Your task to perform on an android device: Go to wifi settings Image 0: 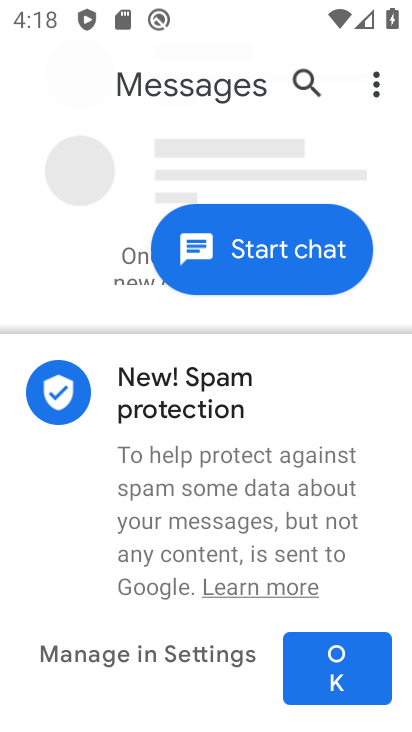
Step 0: press home button
Your task to perform on an android device: Go to wifi settings Image 1: 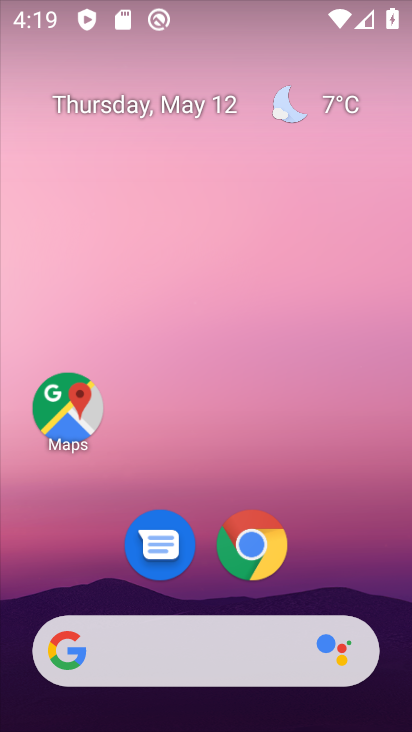
Step 1: drag from (350, 540) to (340, 120)
Your task to perform on an android device: Go to wifi settings Image 2: 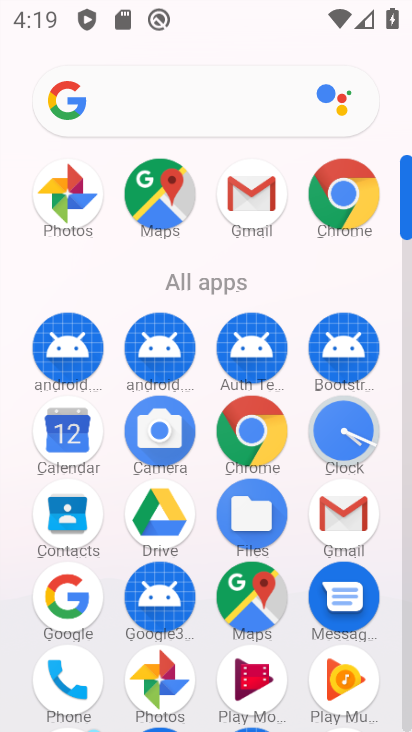
Step 2: drag from (255, 599) to (333, 218)
Your task to perform on an android device: Go to wifi settings Image 3: 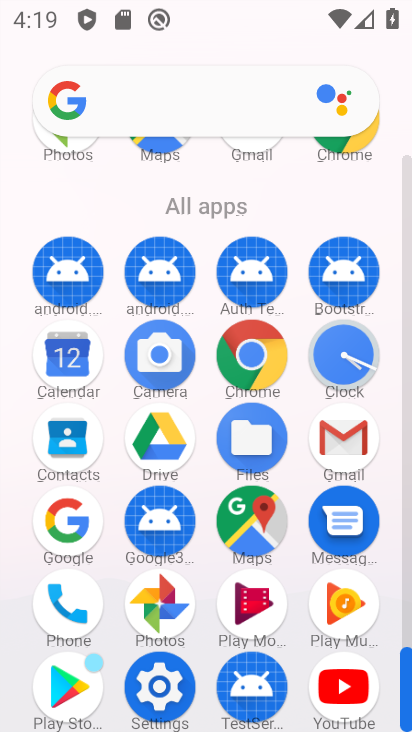
Step 3: click (175, 645)
Your task to perform on an android device: Go to wifi settings Image 4: 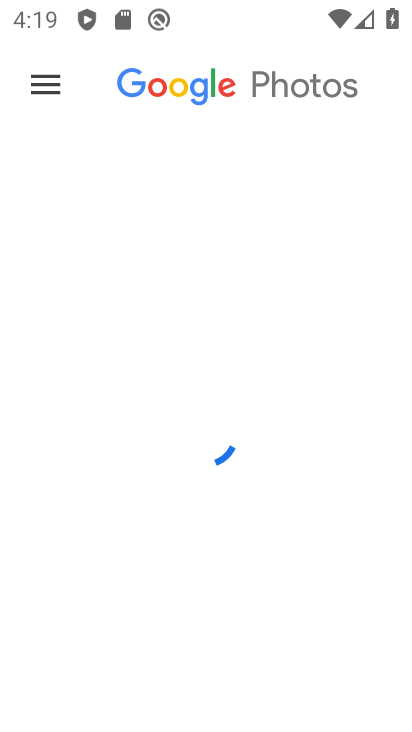
Step 4: press home button
Your task to perform on an android device: Go to wifi settings Image 5: 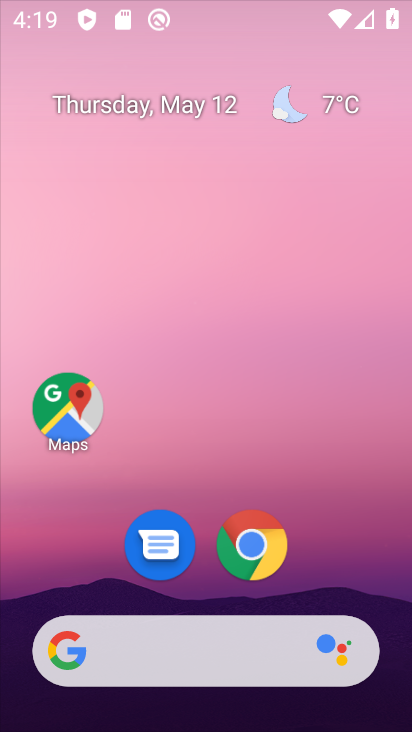
Step 5: drag from (231, 439) to (270, 52)
Your task to perform on an android device: Go to wifi settings Image 6: 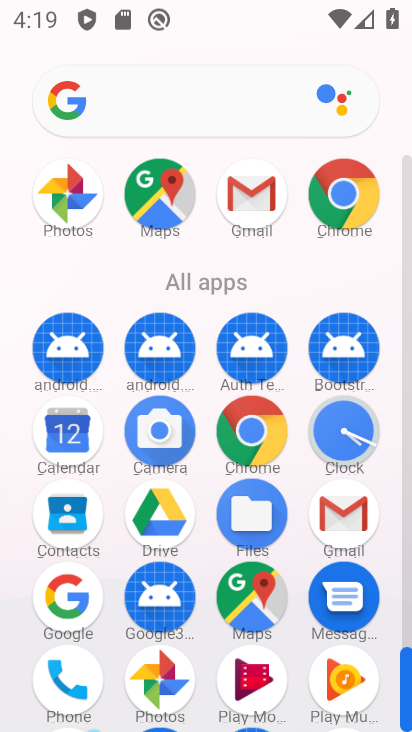
Step 6: drag from (210, 568) to (234, 121)
Your task to perform on an android device: Go to wifi settings Image 7: 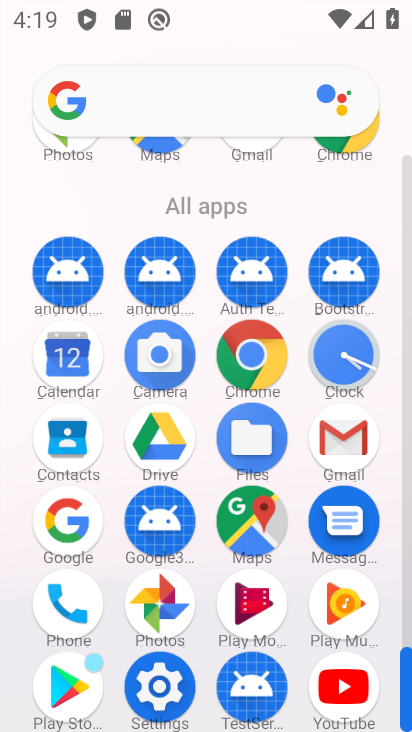
Step 7: click (170, 703)
Your task to perform on an android device: Go to wifi settings Image 8: 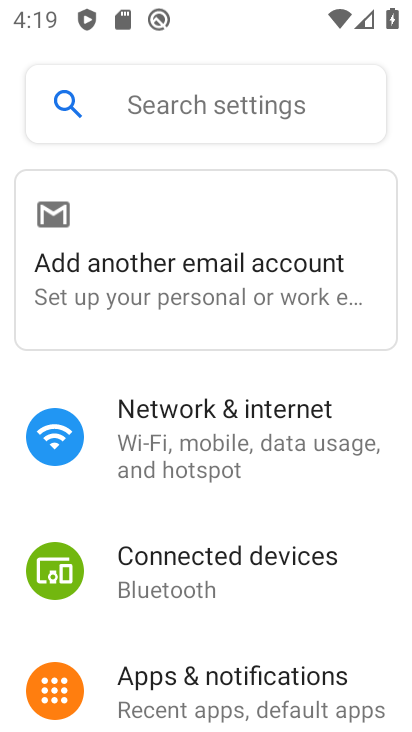
Step 8: click (198, 444)
Your task to perform on an android device: Go to wifi settings Image 9: 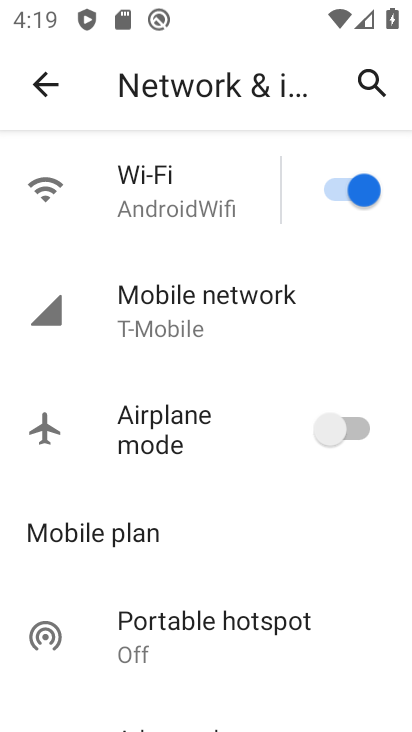
Step 9: click (181, 178)
Your task to perform on an android device: Go to wifi settings Image 10: 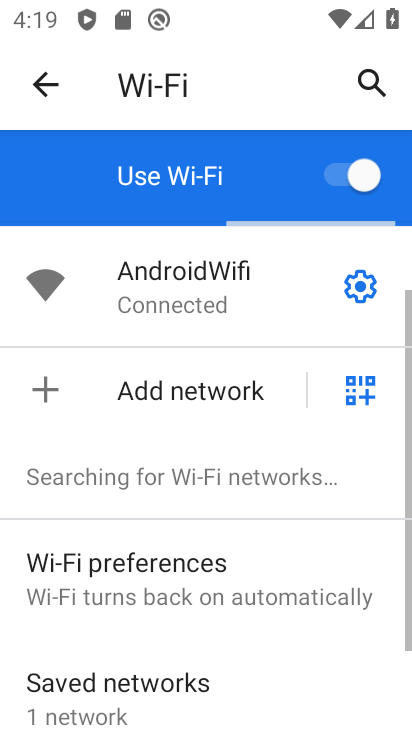
Step 10: click (370, 282)
Your task to perform on an android device: Go to wifi settings Image 11: 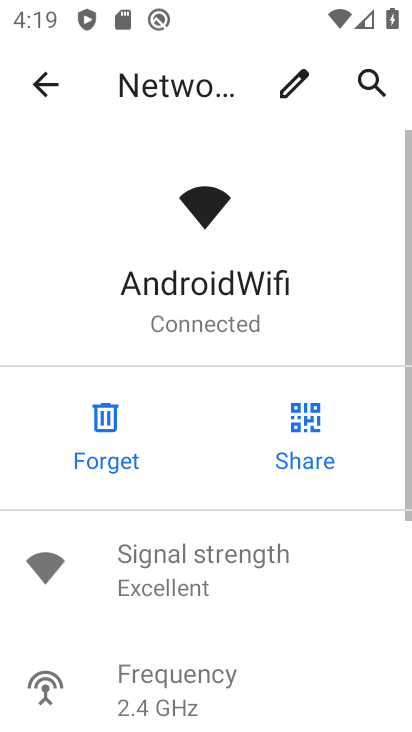
Step 11: task complete